Your task to perform on an android device: uninstall "YouTube Kids" Image 0: 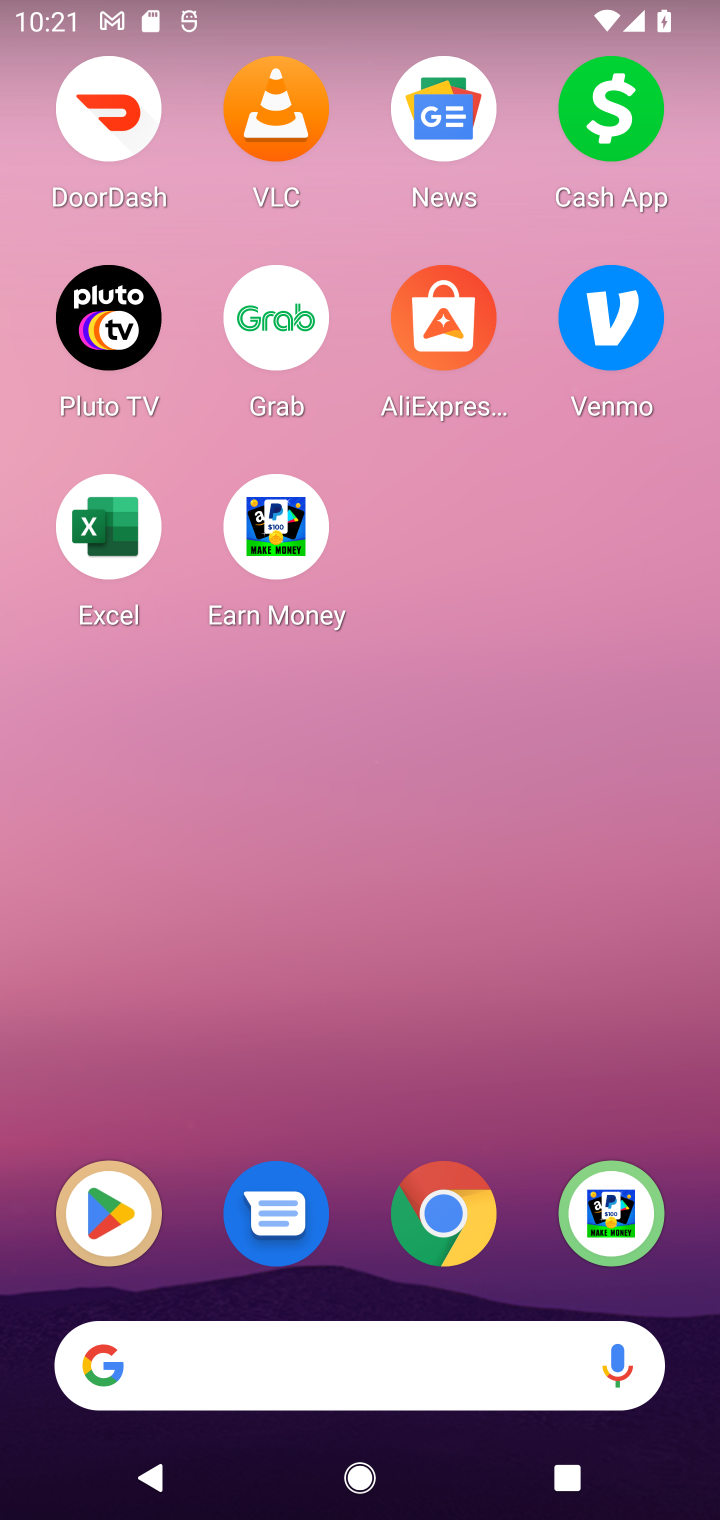
Step 0: drag from (370, 1293) to (429, 102)
Your task to perform on an android device: uninstall "YouTube Kids" Image 1: 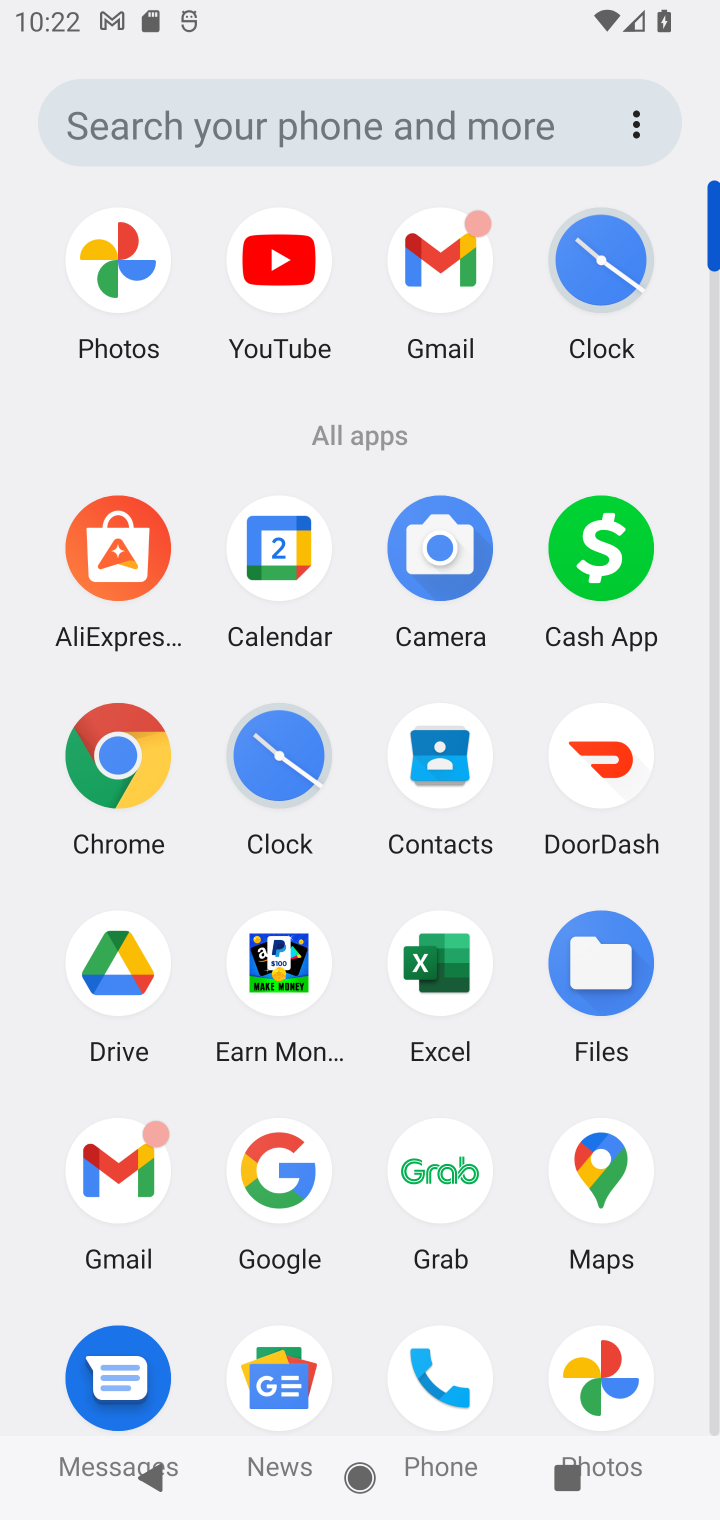
Step 1: click (370, 634)
Your task to perform on an android device: uninstall "YouTube Kids" Image 2: 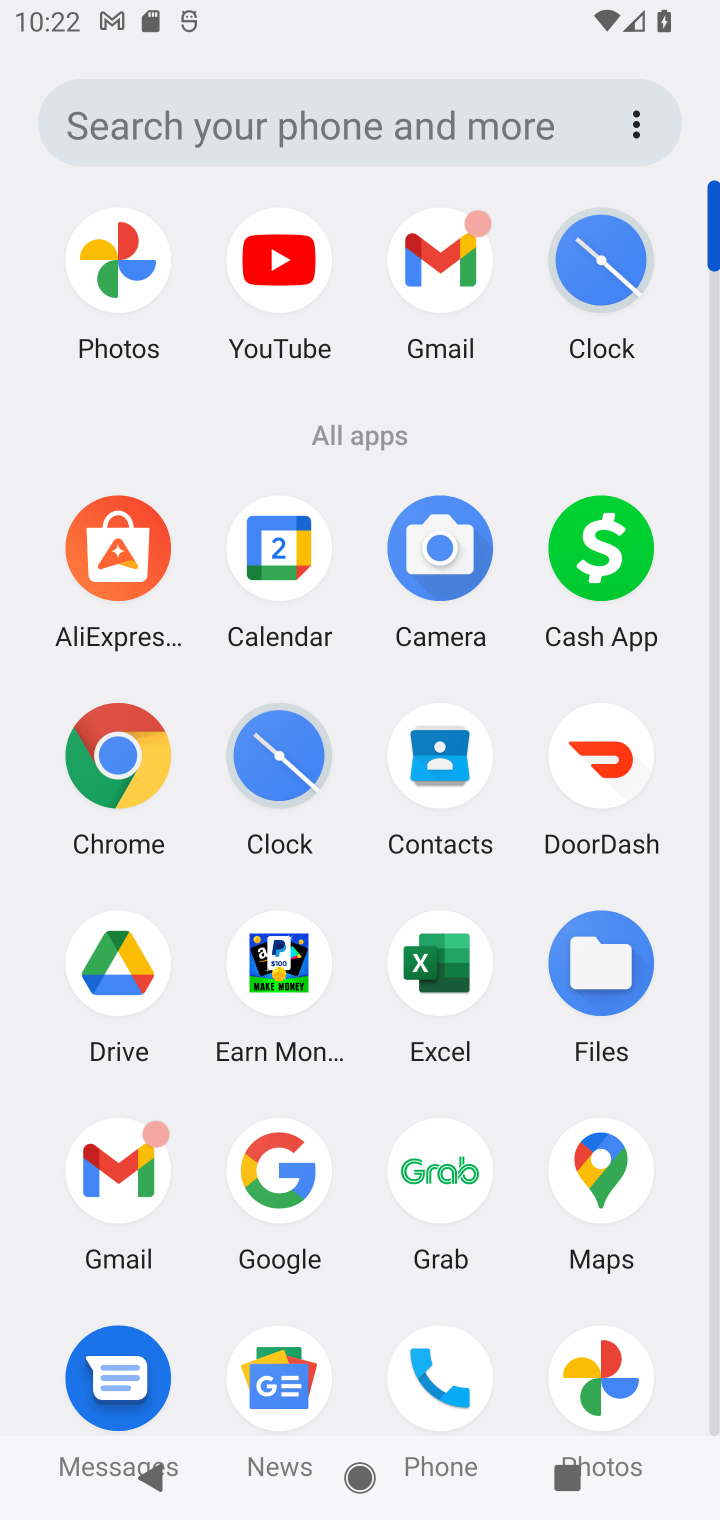
Step 2: press back button
Your task to perform on an android device: uninstall "YouTube Kids" Image 3: 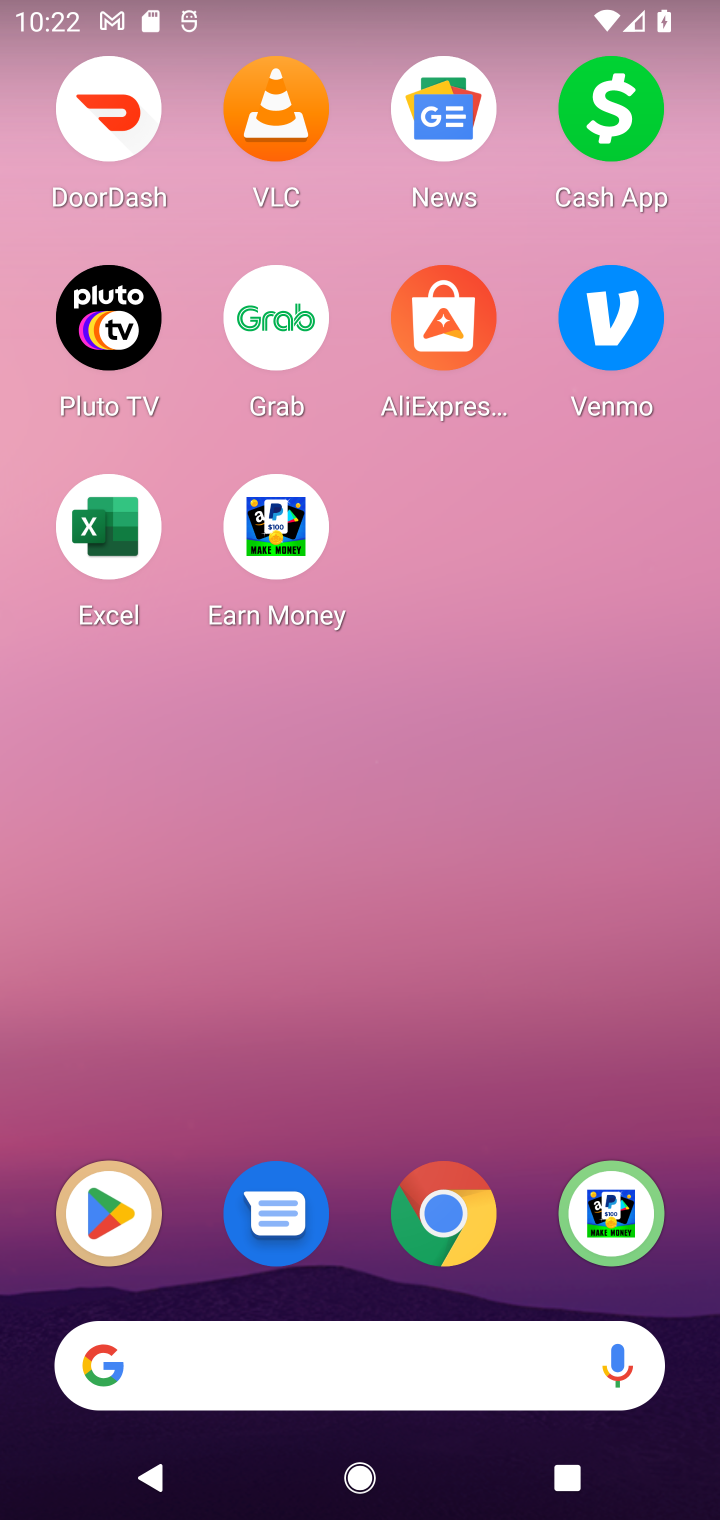
Step 3: click (126, 1205)
Your task to perform on an android device: uninstall "YouTube Kids" Image 4: 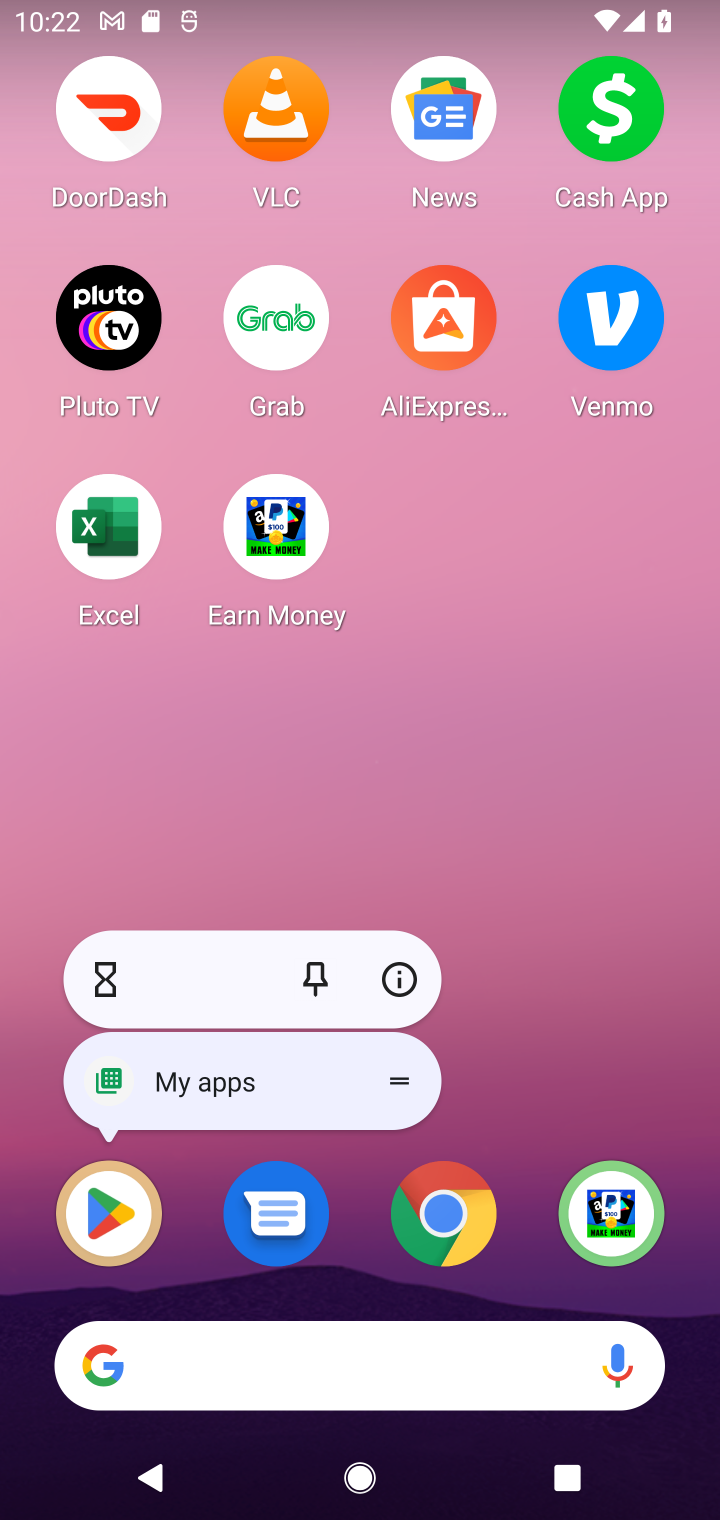
Step 4: click (93, 1224)
Your task to perform on an android device: uninstall "YouTube Kids" Image 5: 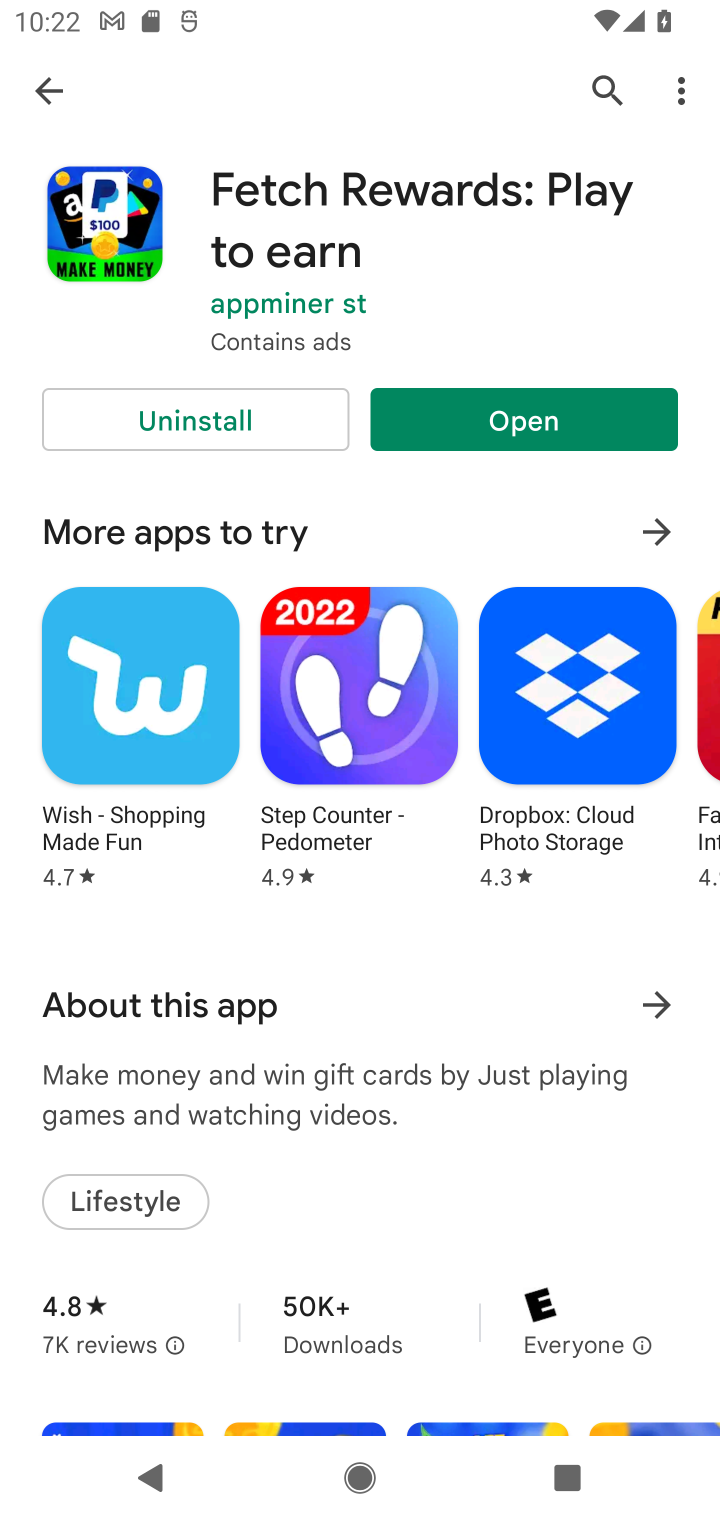
Step 5: click (59, 103)
Your task to perform on an android device: uninstall "YouTube Kids" Image 6: 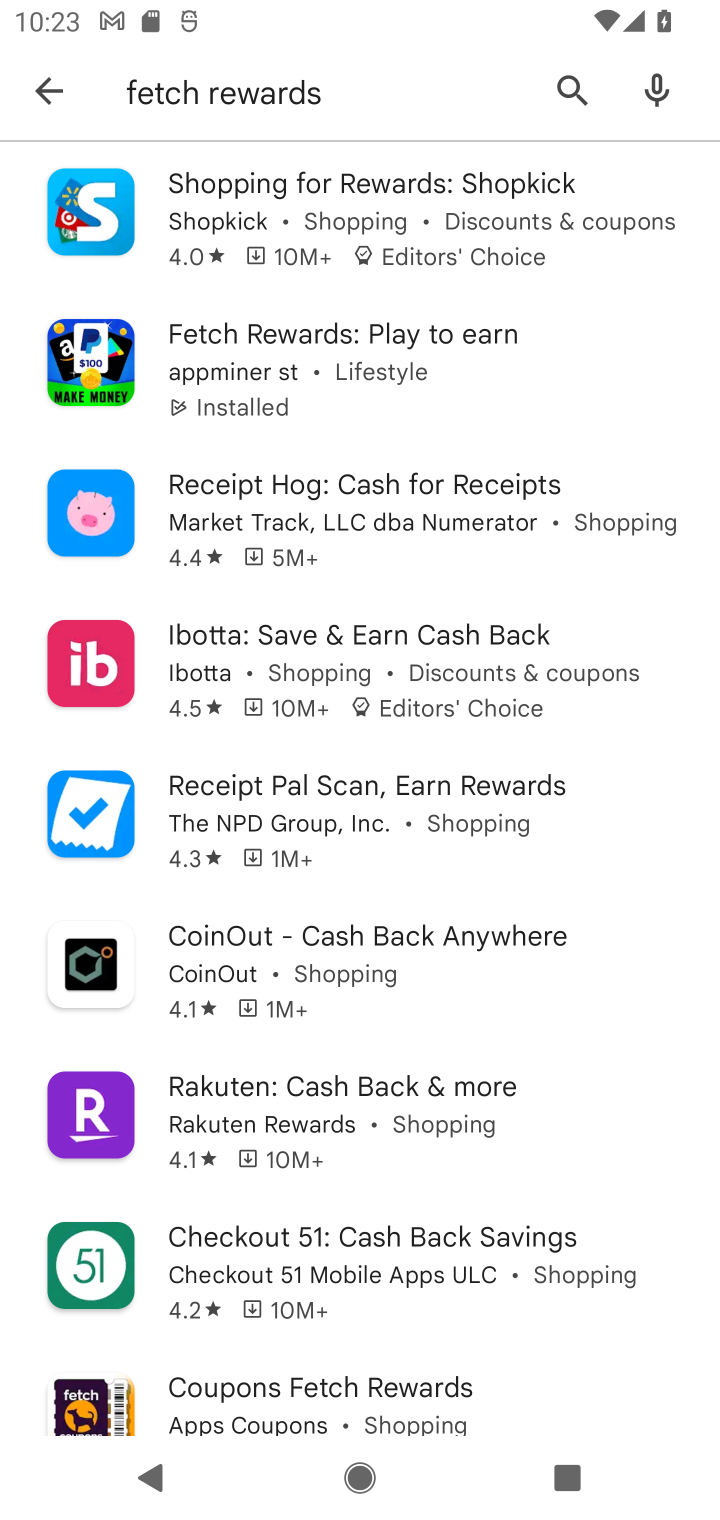
Step 6: click (59, 103)
Your task to perform on an android device: uninstall "YouTube Kids" Image 7: 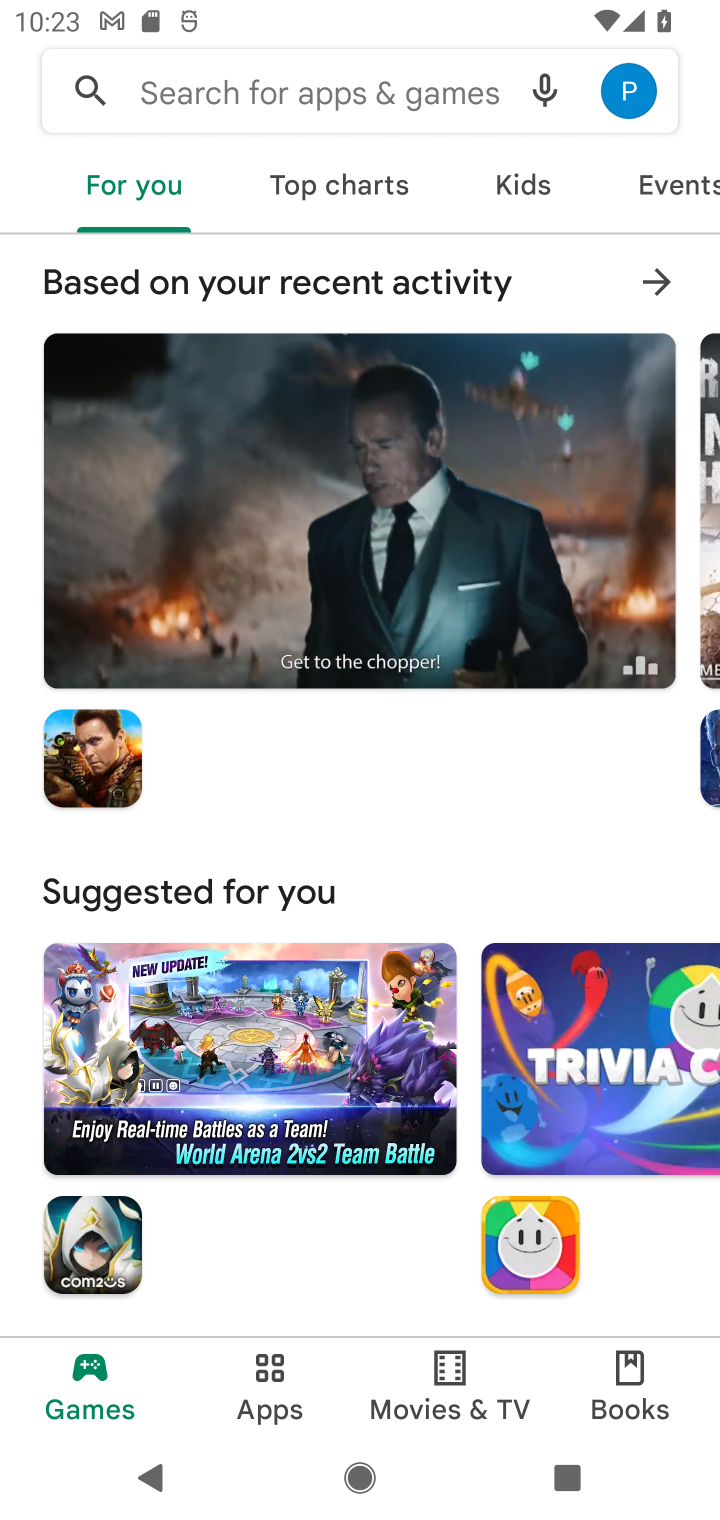
Step 7: click (367, 106)
Your task to perform on an android device: uninstall "YouTube Kids" Image 8: 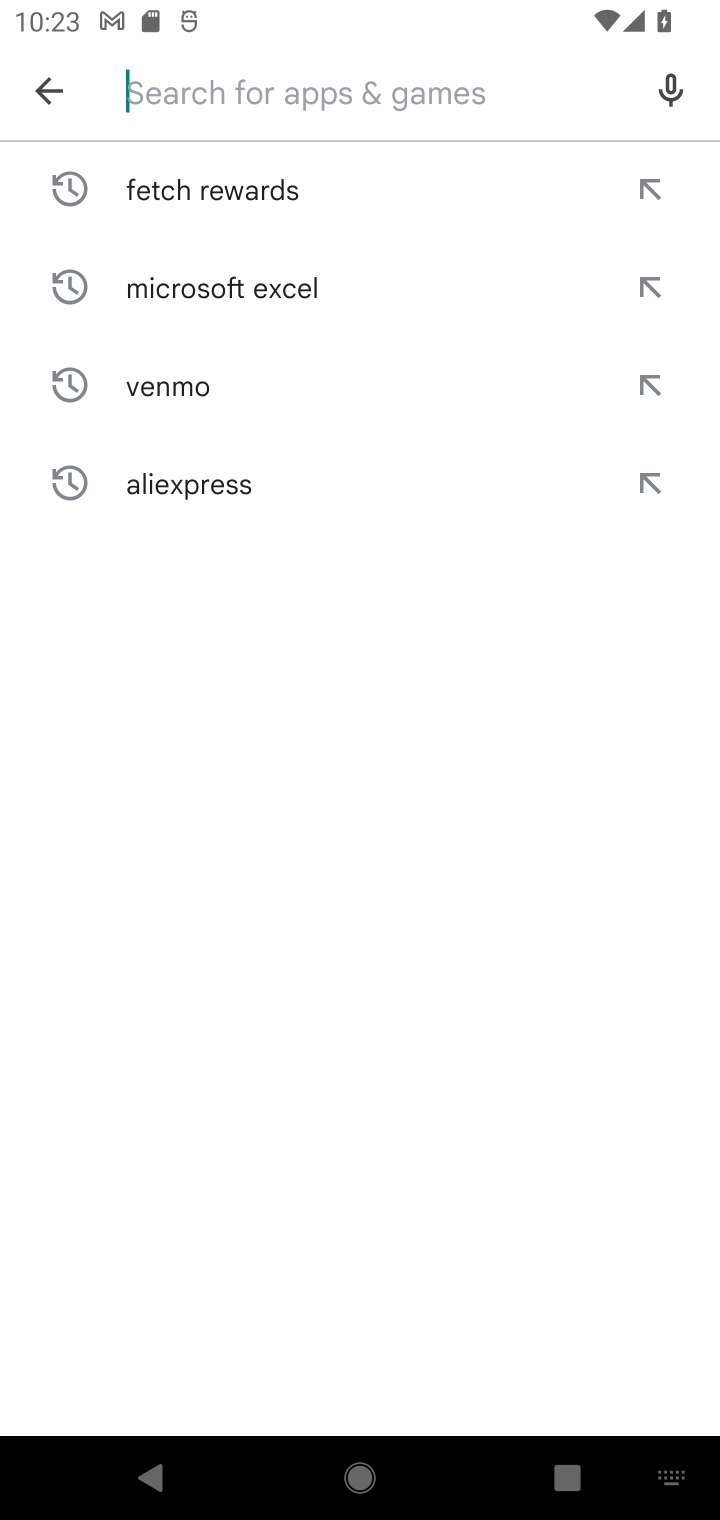
Step 8: type "YouTube Kids"
Your task to perform on an android device: uninstall "YouTube Kids" Image 9: 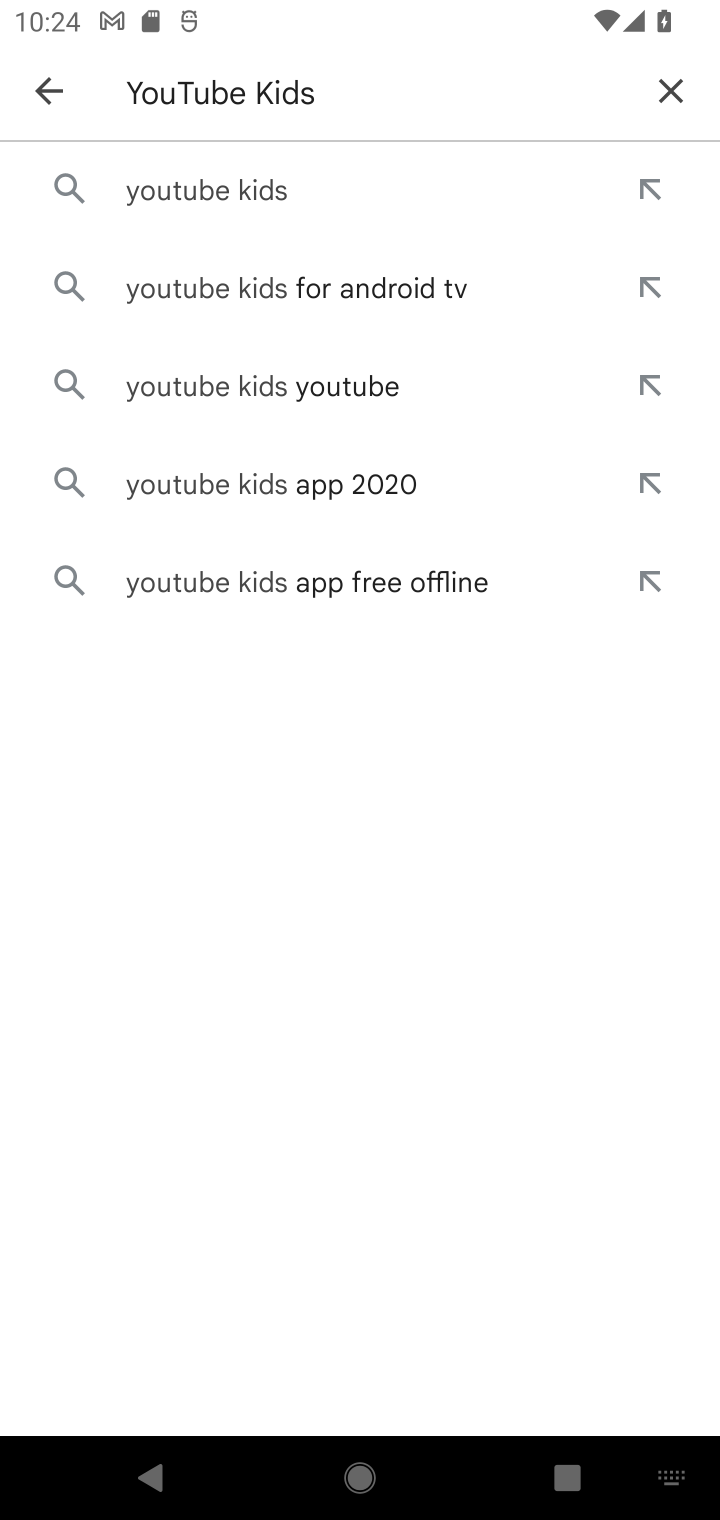
Step 9: click (198, 189)
Your task to perform on an android device: uninstall "YouTube Kids" Image 10: 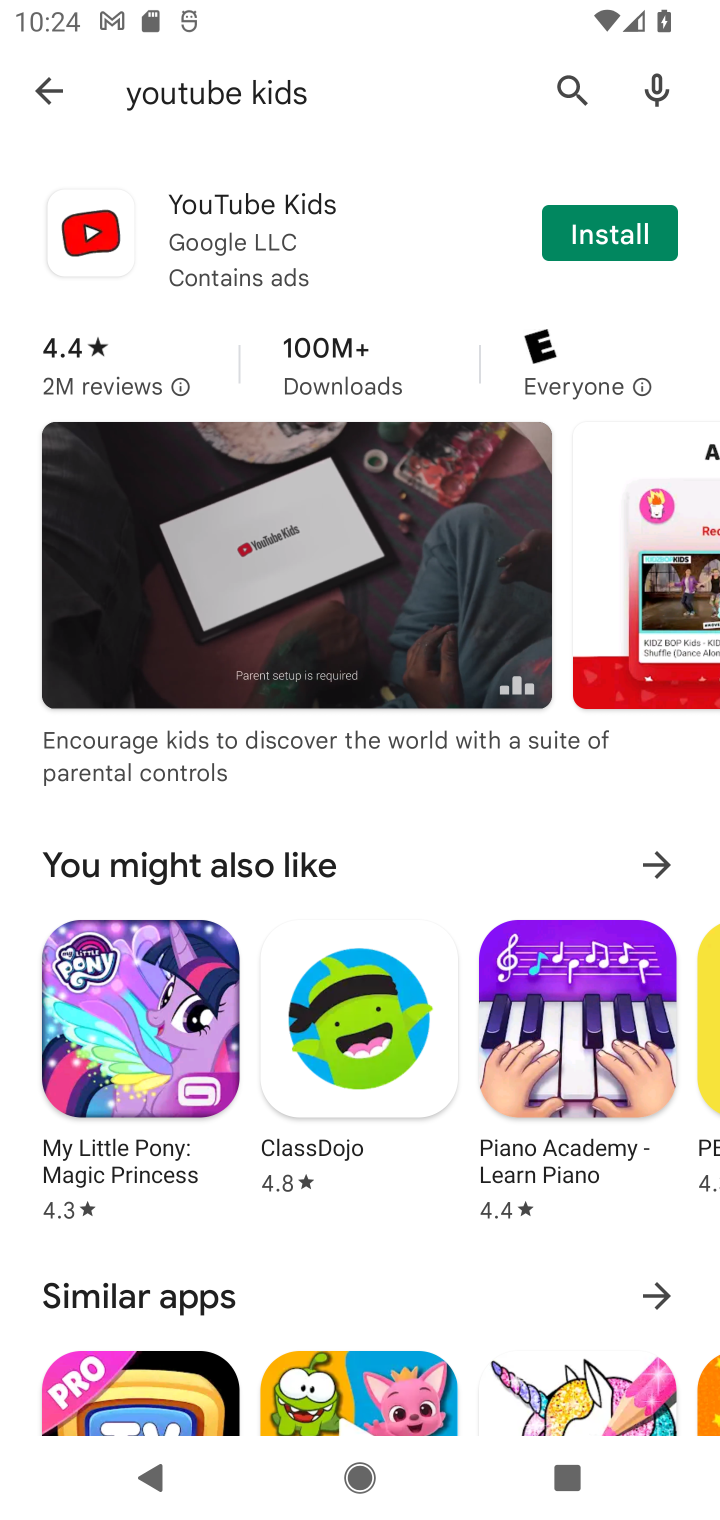
Step 10: task complete